Your task to perform on an android device: Open settings on Google Maps Image 0: 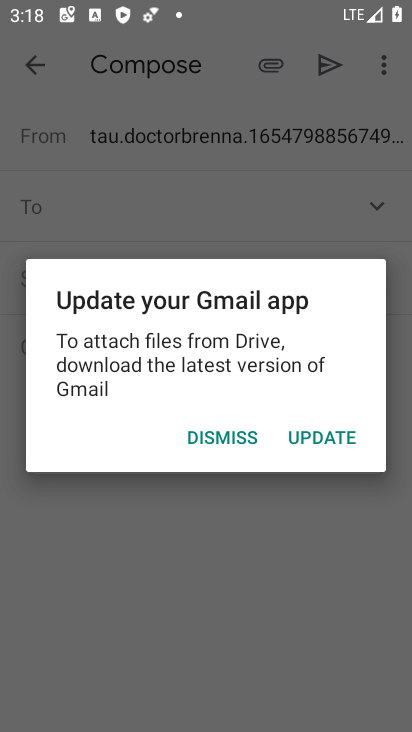
Step 0: click (235, 433)
Your task to perform on an android device: Open settings on Google Maps Image 1: 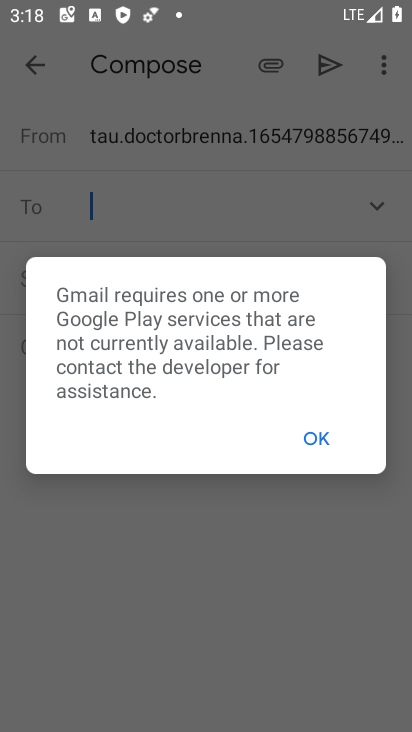
Step 1: click (319, 426)
Your task to perform on an android device: Open settings on Google Maps Image 2: 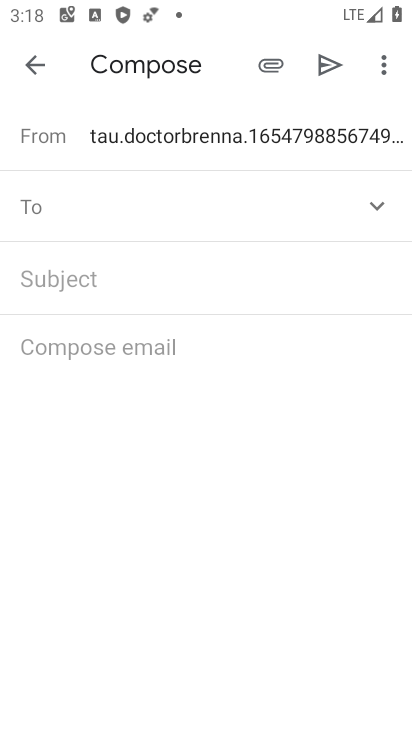
Step 2: press back button
Your task to perform on an android device: Open settings on Google Maps Image 3: 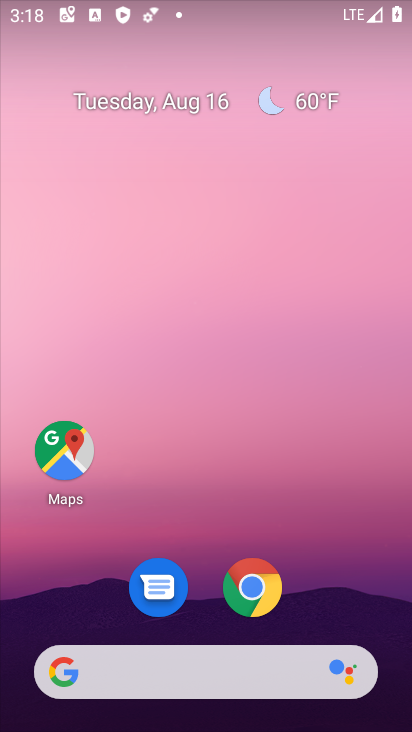
Step 3: click (63, 442)
Your task to perform on an android device: Open settings on Google Maps Image 4: 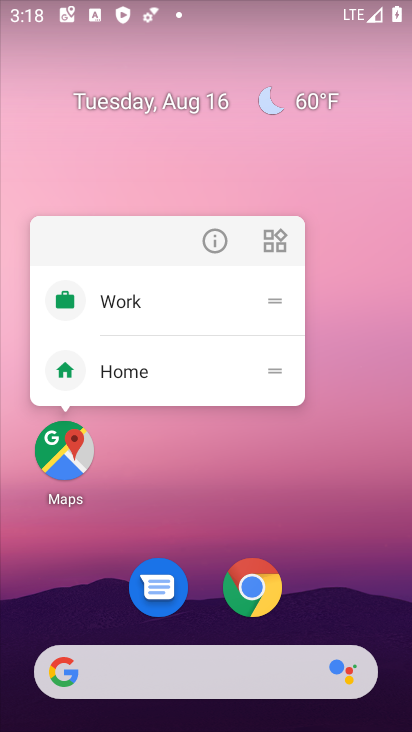
Step 4: click (62, 460)
Your task to perform on an android device: Open settings on Google Maps Image 5: 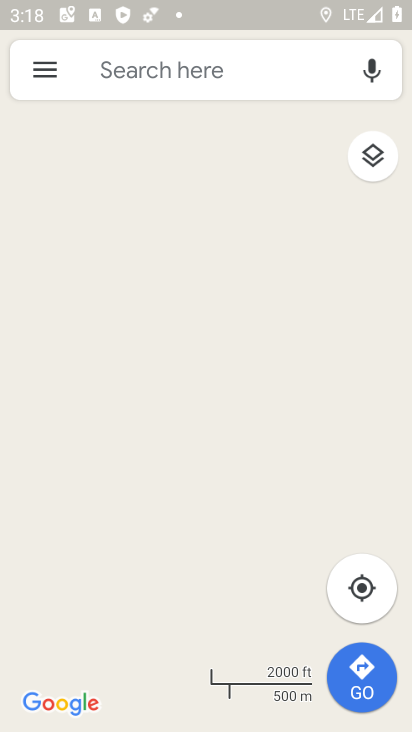
Step 5: click (37, 50)
Your task to perform on an android device: Open settings on Google Maps Image 6: 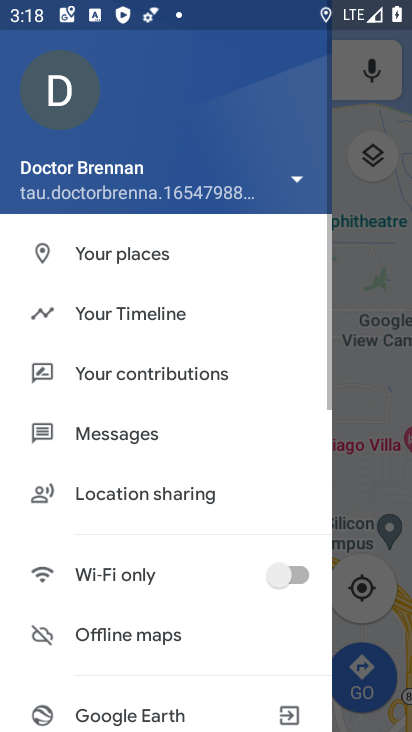
Step 6: drag from (178, 674) to (230, 86)
Your task to perform on an android device: Open settings on Google Maps Image 7: 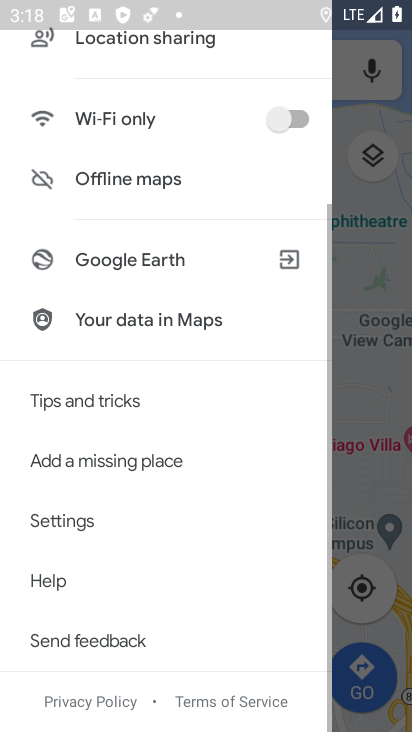
Step 7: click (118, 525)
Your task to perform on an android device: Open settings on Google Maps Image 8: 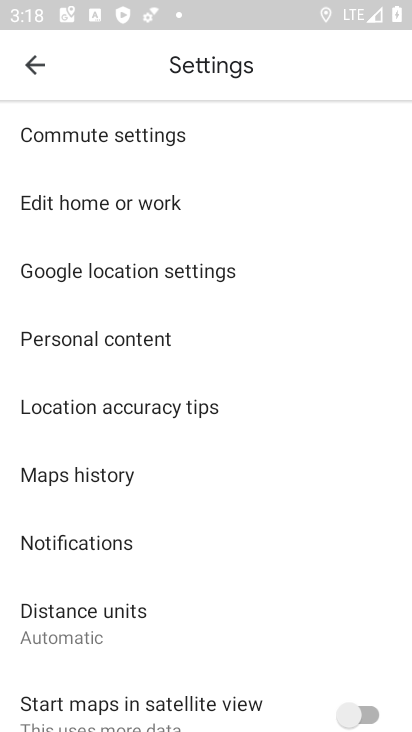
Step 8: task complete